Your task to perform on an android device: What's the weather today? Image 0: 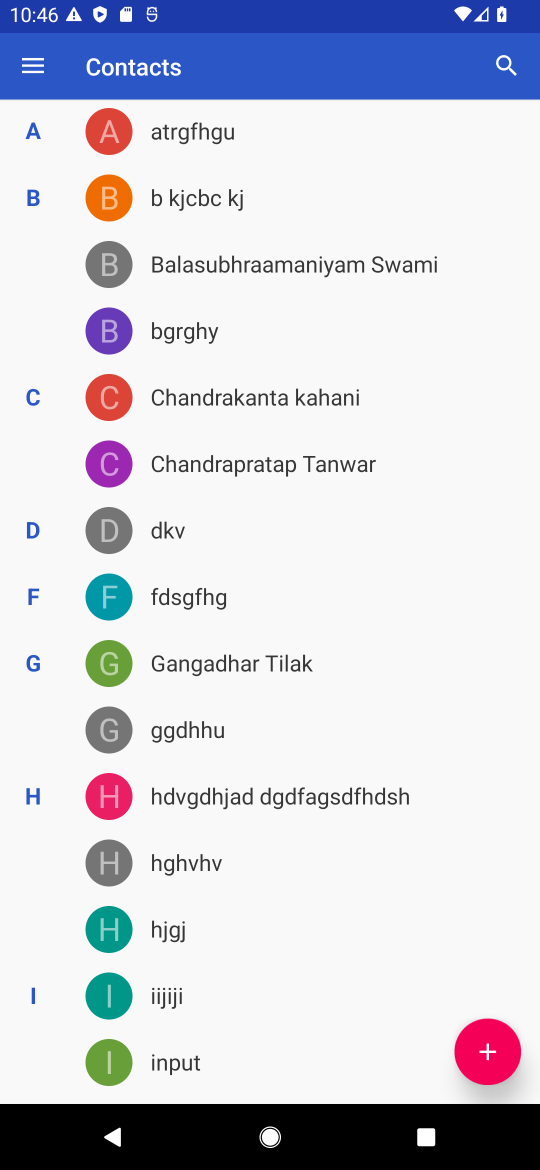
Step 0: press home button
Your task to perform on an android device: What's the weather today? Image 1: 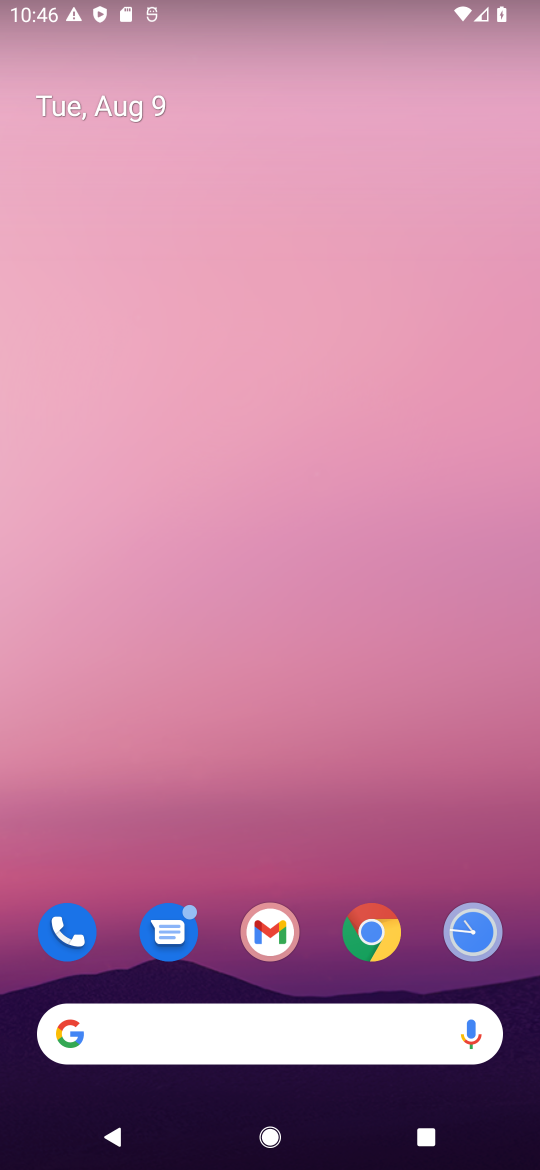
Step 1: drag from (270, 978) to (353, 297)
Your task to perform on an android device: What's the weather today? Image 2: 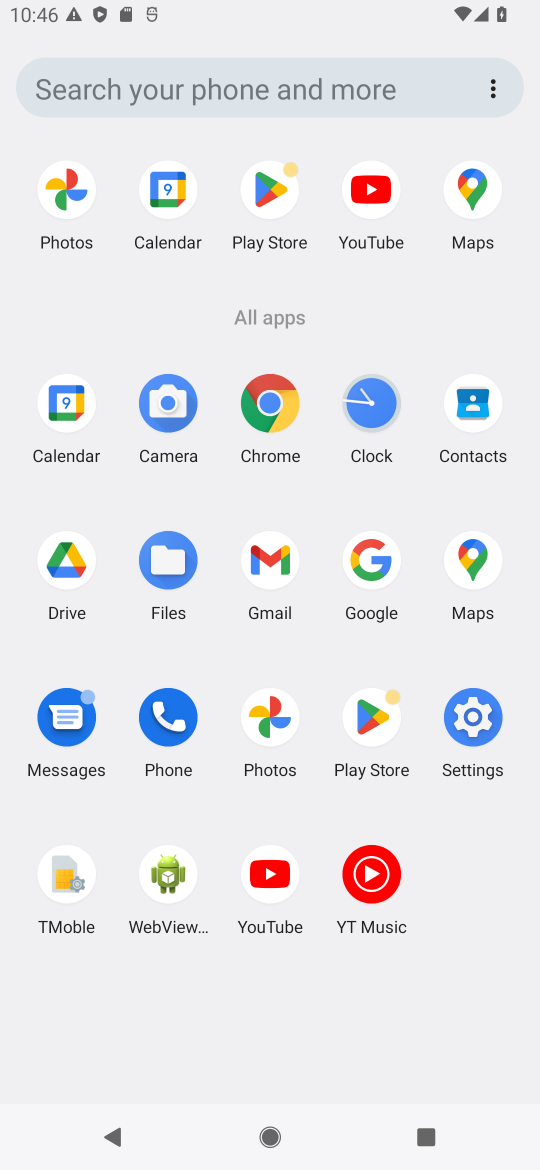
Step 2: click (374, 574)
Your task to perform on an android device: What's the weather today? Image 3: 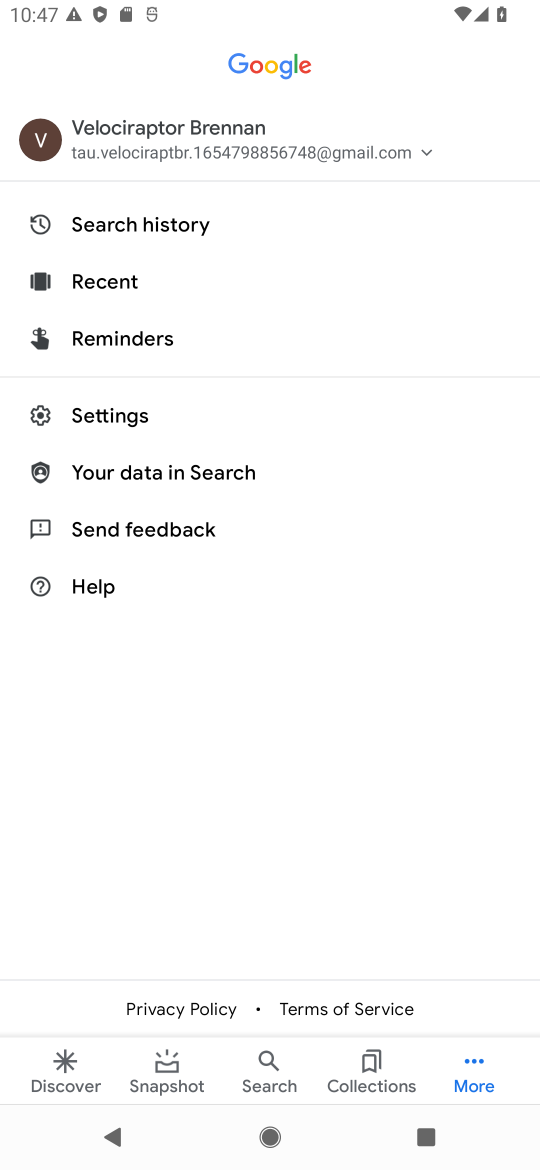
Step 3: click (43, 1062)
Your task to perform on an android device: What's the weather today? Image 4: 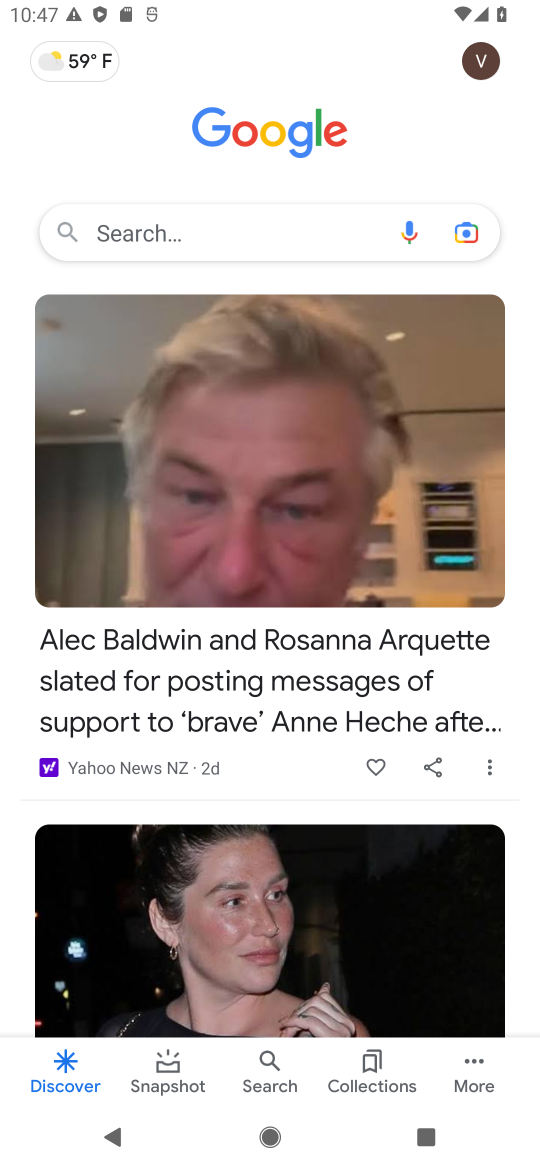
Step 4: click (202, 217)
Your task to perform on an android device: What's the weather today? Image 5: 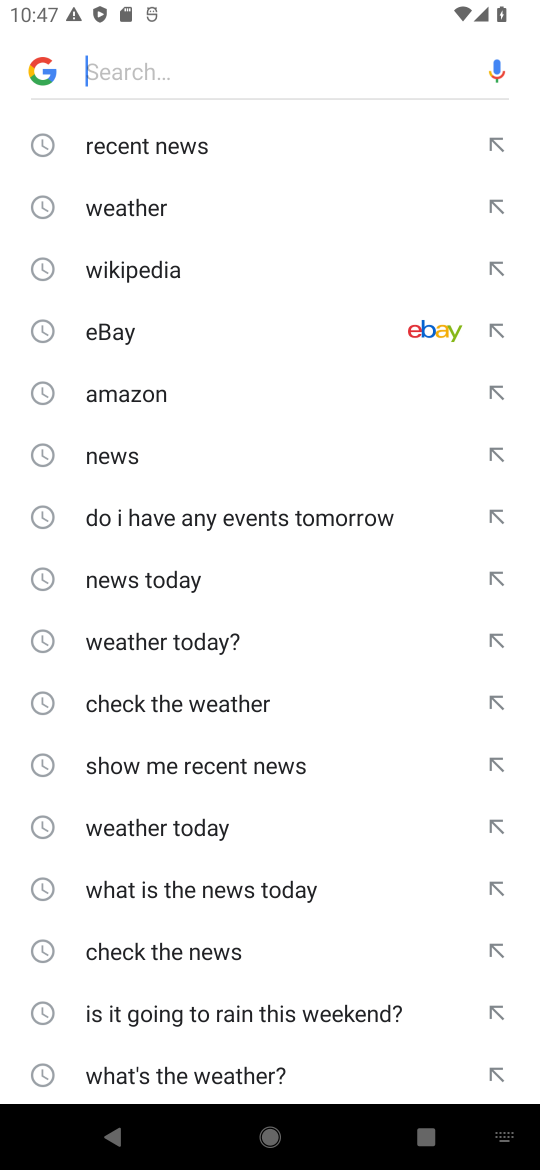
Step 5: click (129, 188)
Your task to perform on an android device: What's the weather today? Image 6: 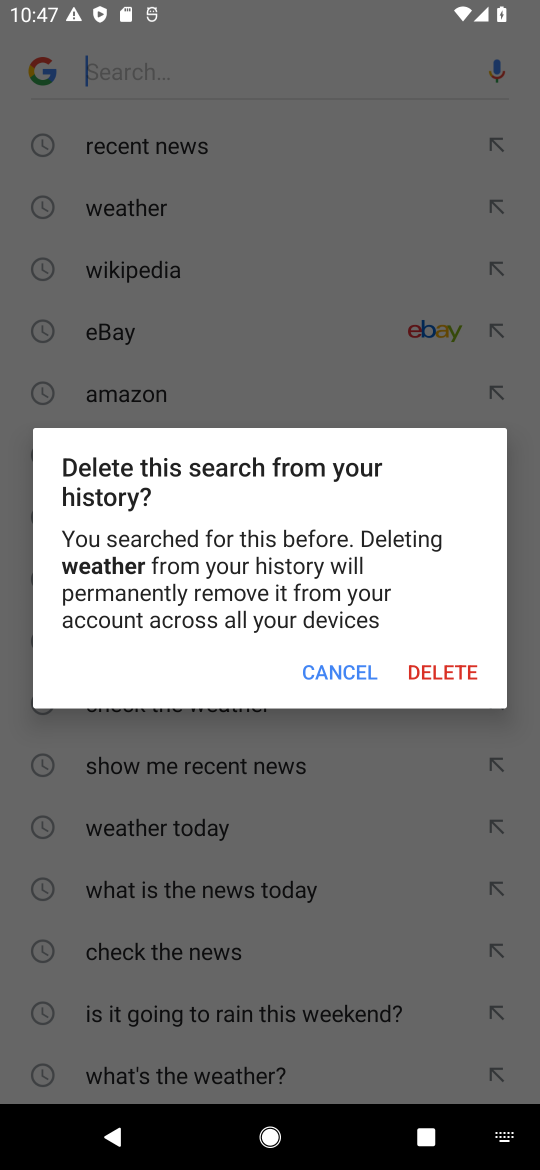
Step 6: click (312, 667)
Your task to perform on an android device: What's the weather today? Image 7: 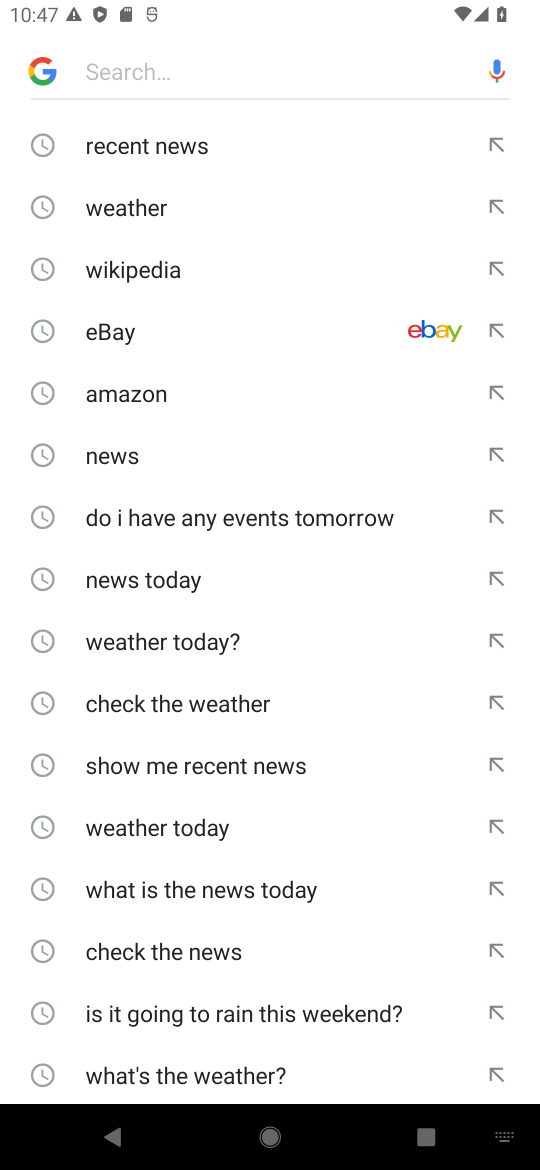
Step 7: click (143, 206)
Your task to perform on an android device: What's the weather today? Image 8: 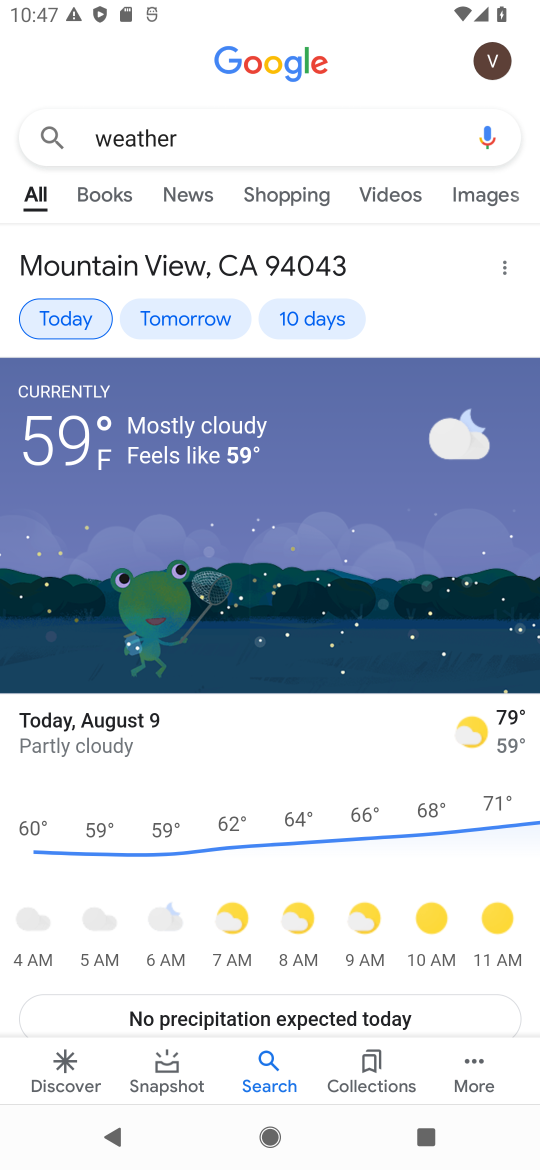
Step 8: task complete